Your task to perform on an android device: Show the shopping cart on walmart. Search for razer deathadder on walmart, select the first entry, and add it to the cart. Image 0: 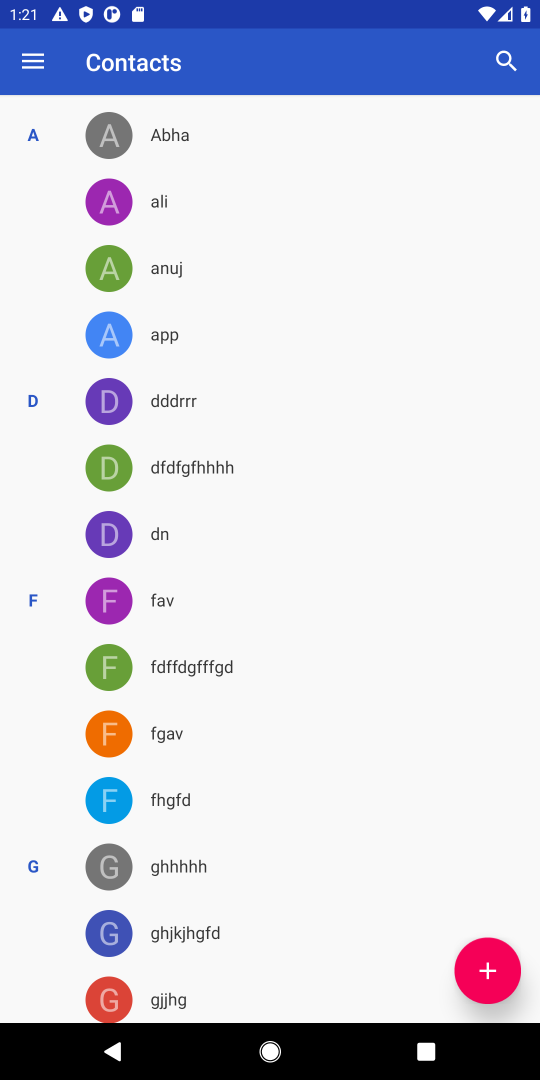
Step 0: press home button
Your task to perform on an android device: Show the shopping cart on walmart. Search for razer deathadder on walmart, select the first entry, and add it to the cart. Image 1: 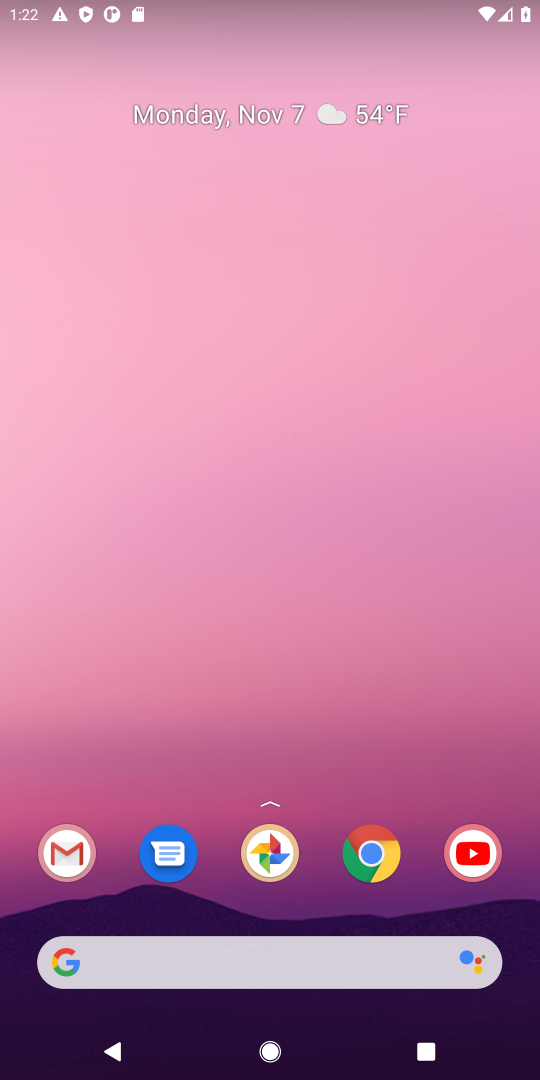
Step 1: drag from (384, 822) to (381, 170)
Your task to perform on an android device: Show the shopping cart on walmart. Search for razer deathadder on walmart, select the first entry, and add it to the cart. Image 2: 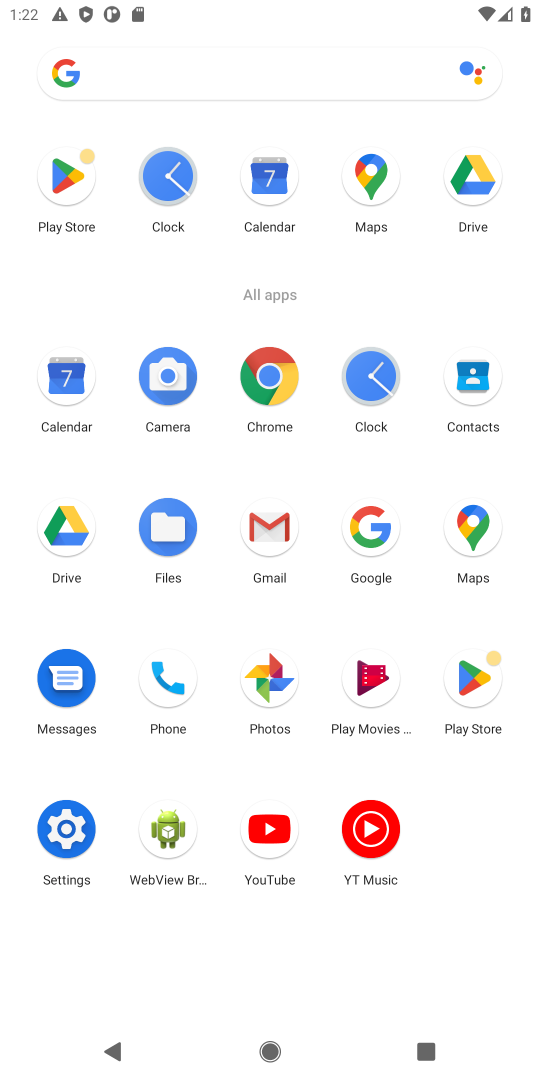
Step 2: click (258, 396)
Your task to perform on an android device: Show the shopping cart on walmart. Search for razer deathadder on walmart, select the first entry, and add it to the cart. Image 3: 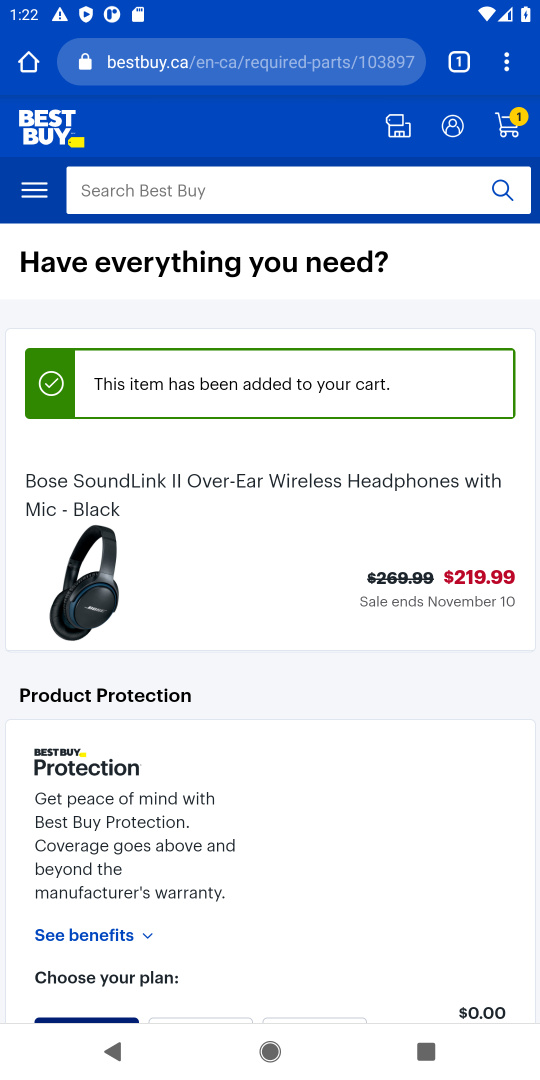
Step 3: click (173, 67)
Your task to perform on an android device: Show the shopping cart on walmart. Search for razer deathadder on walmart, select the first entry, and add it to the cart. Image 4: 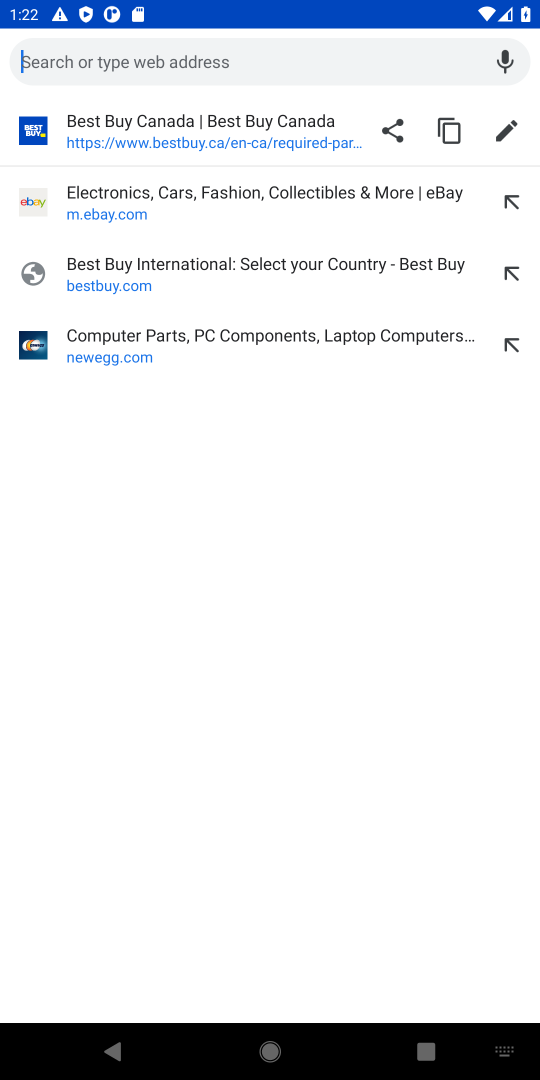
Step 4: type "walmart"
Your task to perform on an android device: Show the shopping cart on walmart. Search for razer deathadder on walmart, select the first entry, and add it to the cart. Image 5: 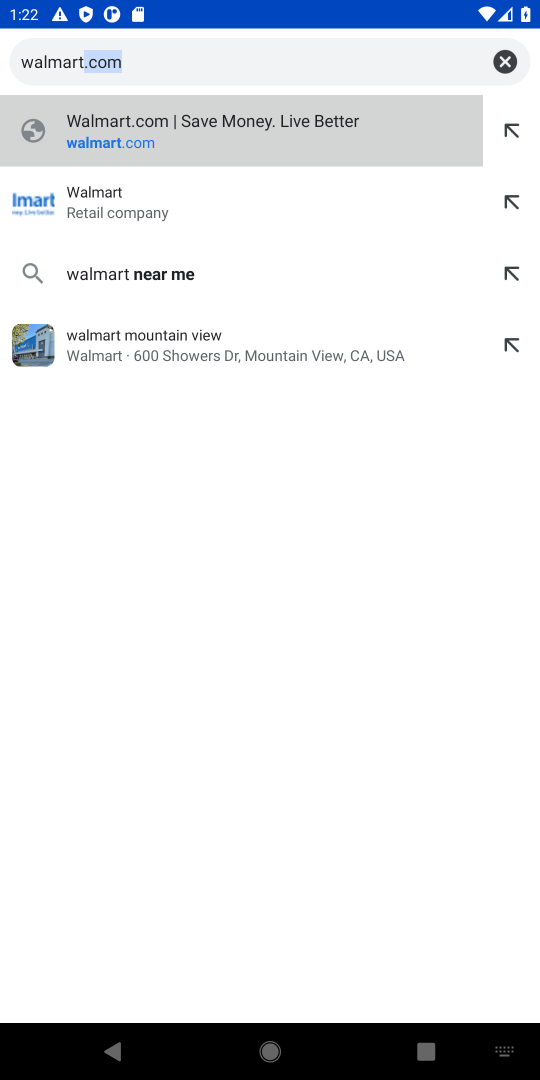
Step 5: press enter
Your task to perform on an android device: Show the shopping cart on walmart. Search for razer deathadder on walmart, select the first entry, and add it to the cart. Image 6: 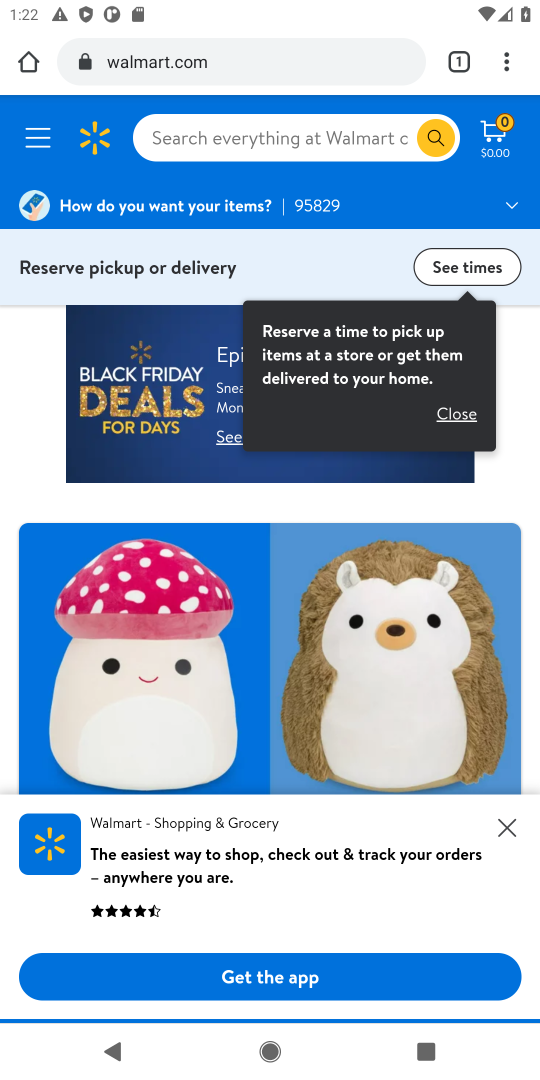
Step 6: click (231, 119)
Your task to perform on an android device: Show the shopping cart on walmart. Search for razer deathadder on walmart, select the first entry, and add it to the cart. Image 7: 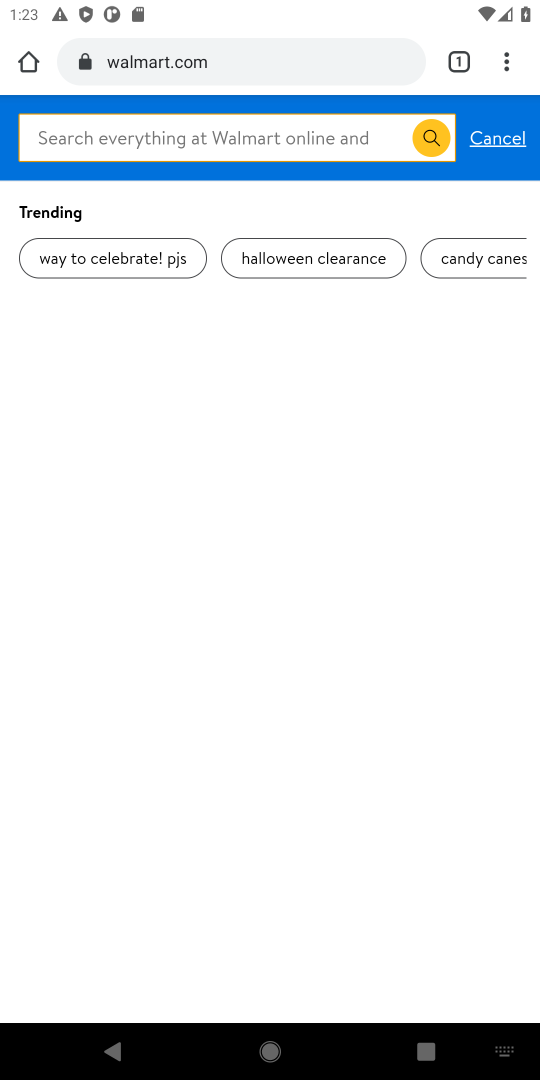
Step 7: type "razer deathadder"
Your task to perform on an android device: Show the shopping cart on walmart. Search for razer deathadder on walmart, select the first entry, and add it to the cart. Image 8: 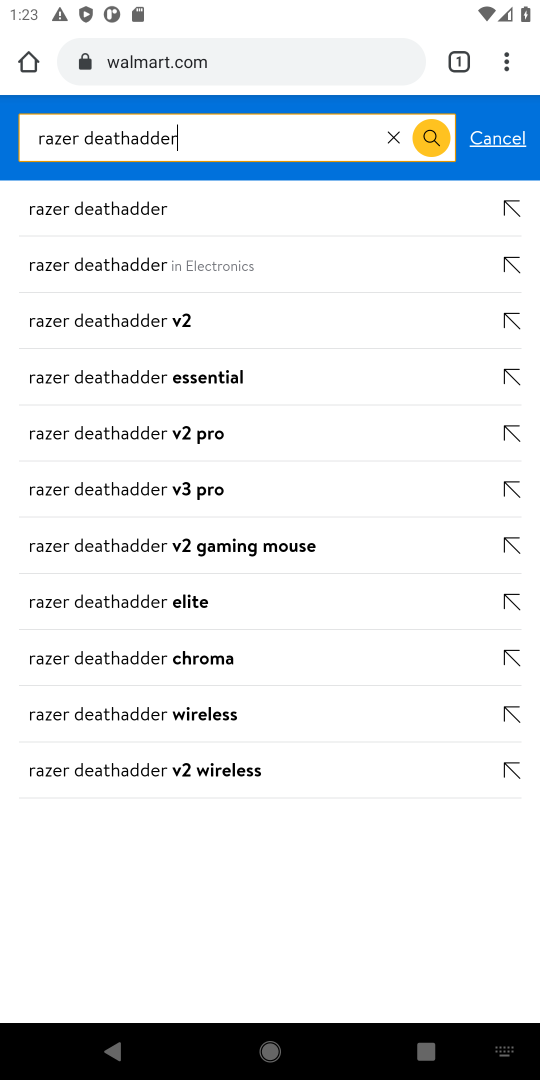
Step 8: press enter
Your task to perform on an android device: Show the shopping cart on walmart. Search for razer deathadder on walmart, select the first entry, and add it to the cart. Image 9: 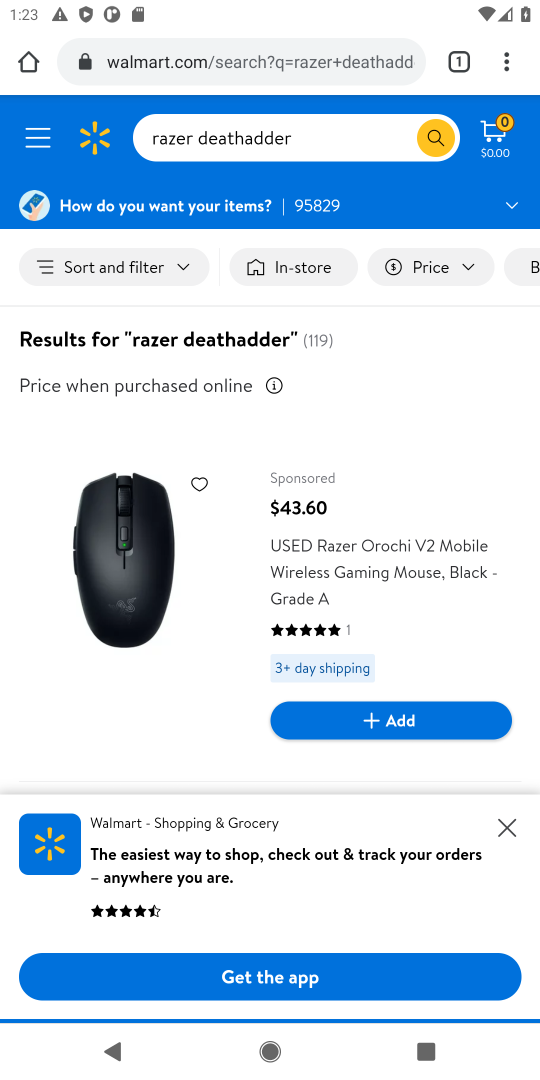
Step 9: click (406, 715)
Your task to perform on an android device: Show the shopping cart on walmart. Search for razer deathadder on walmart, select the first entry, and add it to the cart. Image 10: 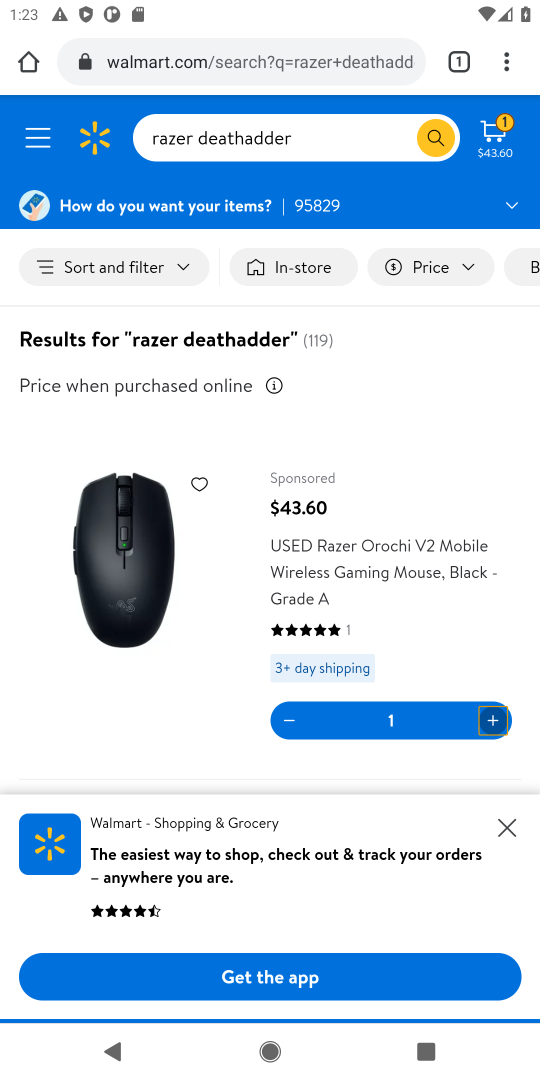
Step 10: click (517, 836)
Your task to perform on an android device: Show the shopping cart on walmart. Search for razer deathadder on walmart, select the first entry, and add it to the cart. Image 11: 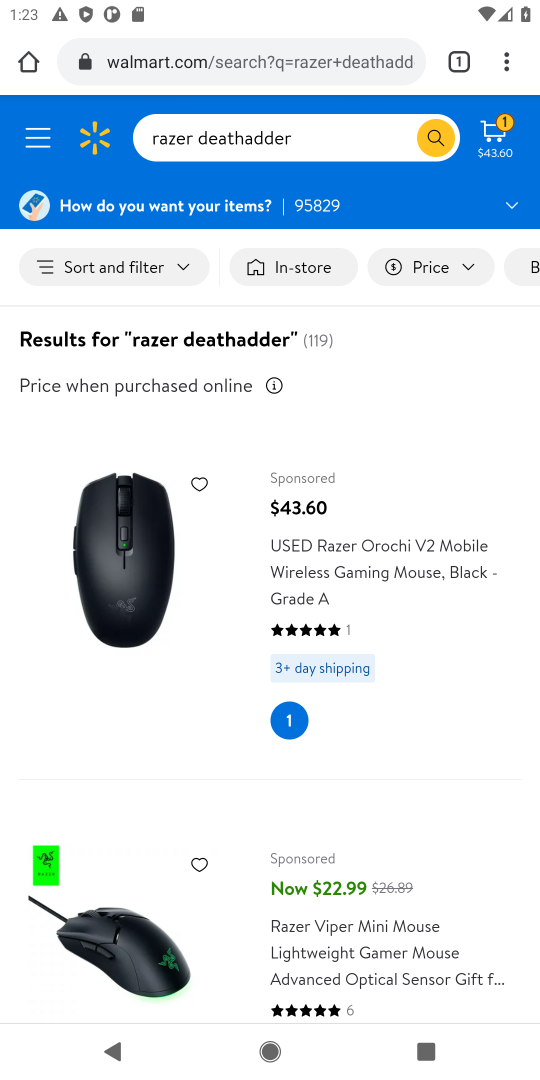
Step 11: click (494, 137)
Your task to perform on an android device: Show the shopping cart on walmart. Search for razer deathadder on walmart, select the first entry, and add it to the cart. Image 12: 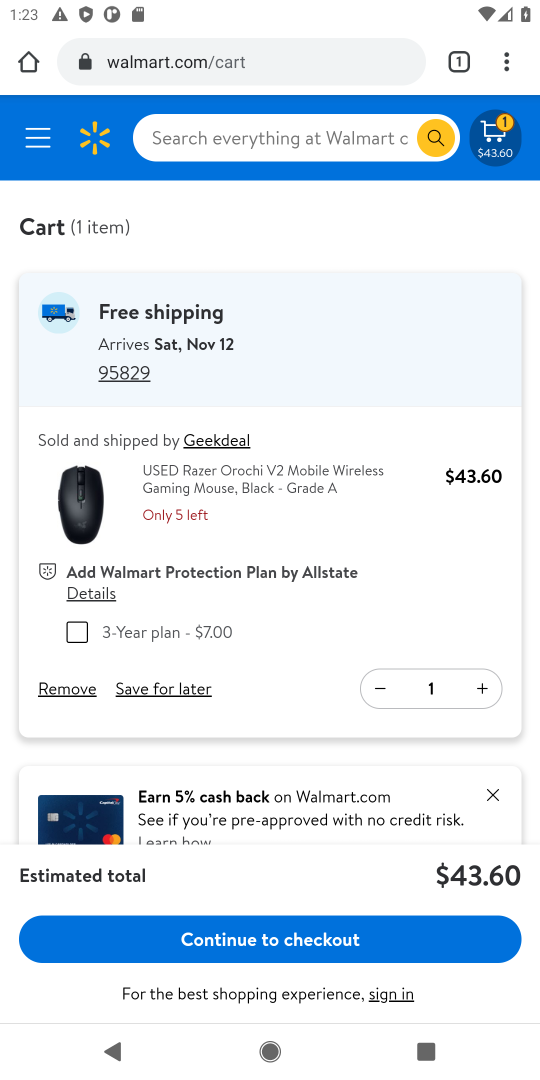
Step 12: click (269, 938)
Your task to perform on an android device: Show the shopping cart on walmart. Search for razer deathadder on walmart, select the first entry, and add it to the cart. Image 13: 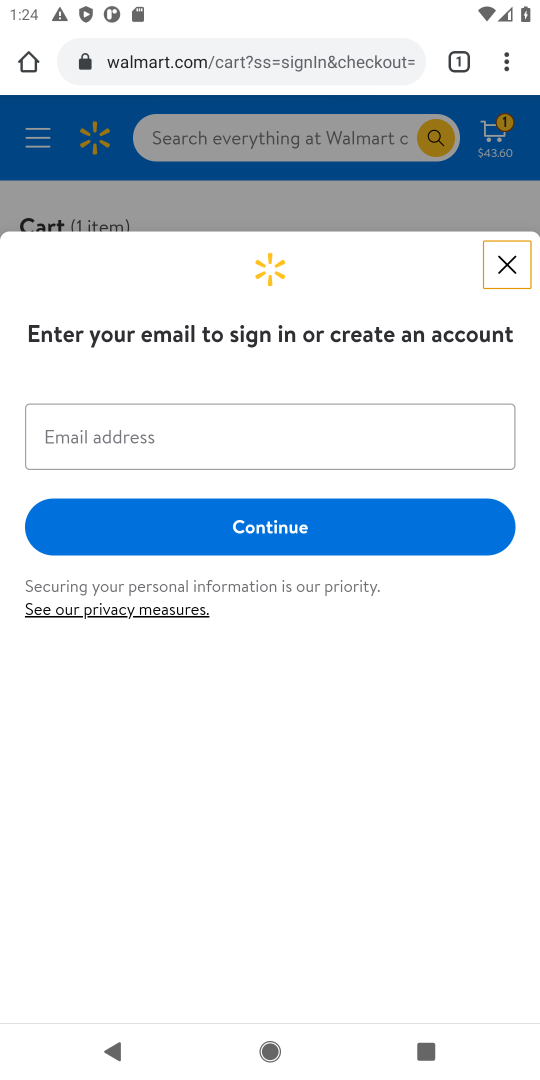
Step 13: task complete